Your task to perform on an android device: add a contact in the contacts app Image 0: 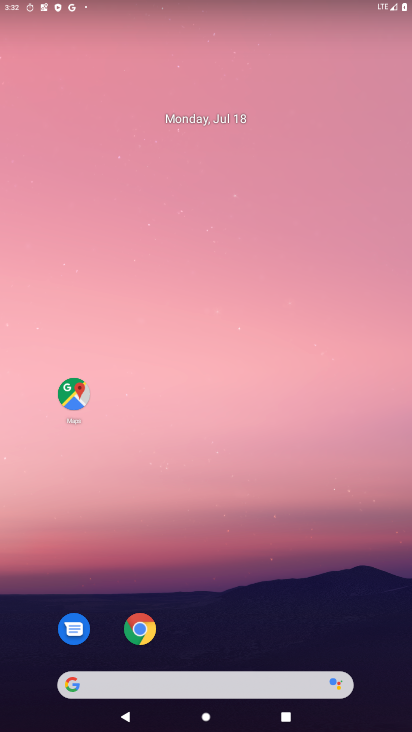
Step 0: drag from (183, 679) to (137, 3)
Your task to perform on an android device: add a contact in the contacts app Image 1: 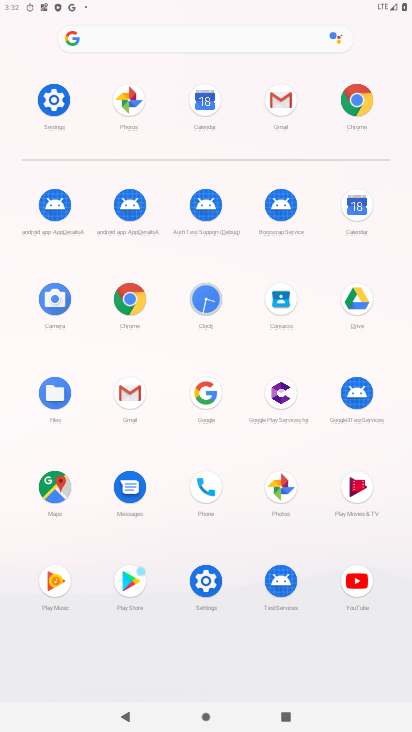
Step 1: click (209, 484)
Your task to perform on an android device: add a contact in the contacts app Image 2: 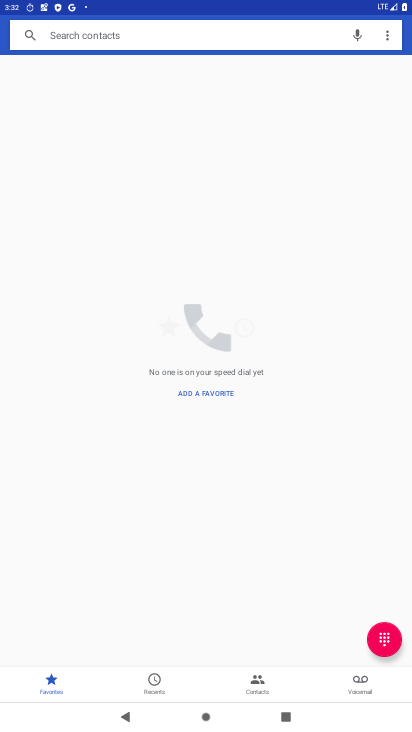
Step 2: click (262, 689)
Your task to perform on an android device: add a contact in the contacts app Image 3: 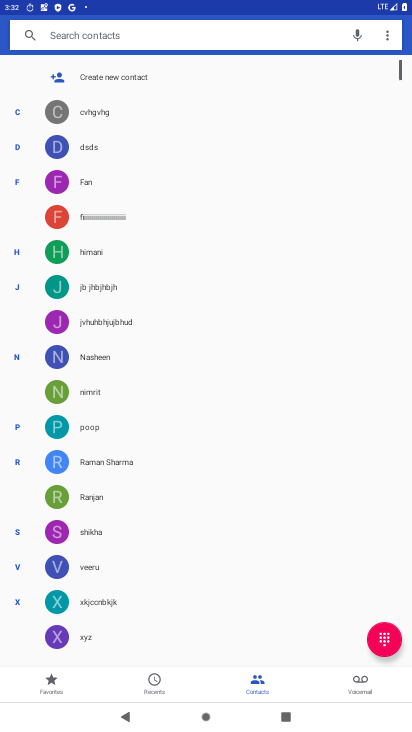
Step 3: click (103, 81)
Your task to perform on an android device: add a contact in the contacts app Image 4: 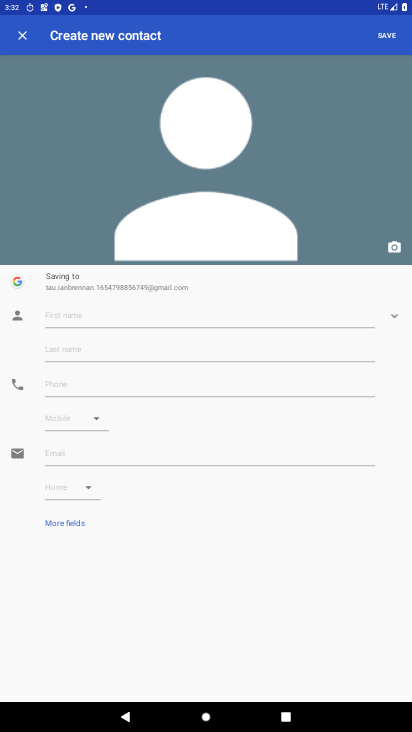
Step 4: type "ii"
Your task to perform on an android device: add a contact in the contacts app Image 5: 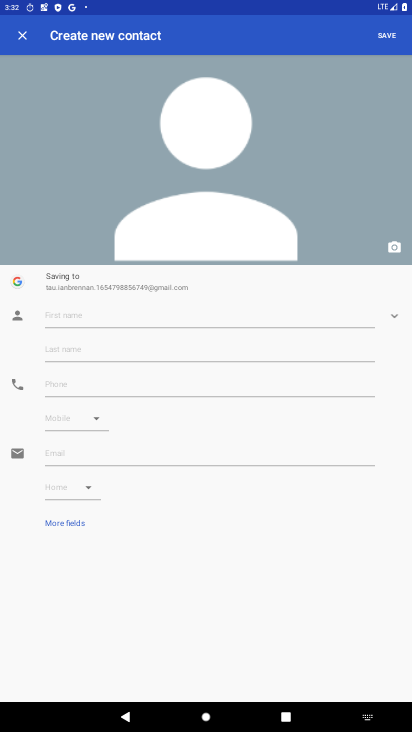
Step 5: click (186, 320)
Your task to perform on an android device: add a contact in the contacts app Image 6: 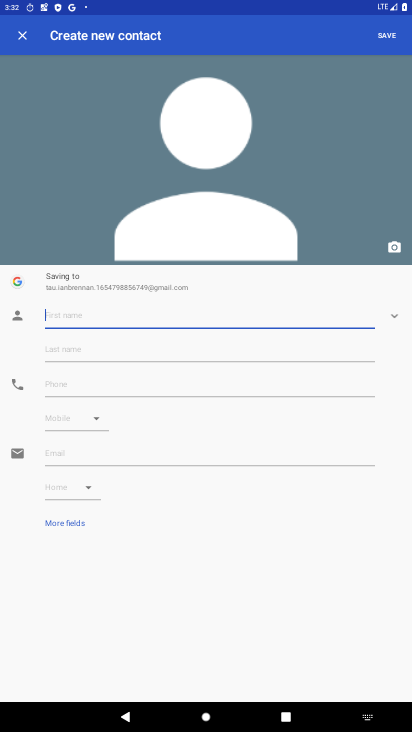
Step 6: type "yfy"
Your task to perform on an android device: add a contact in the contacts app Image 7: 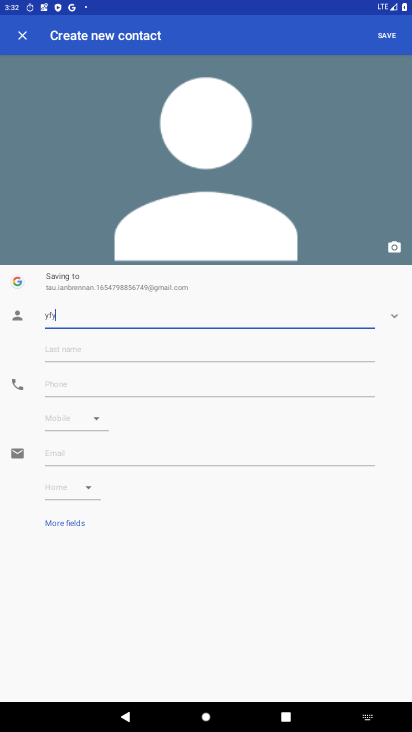
Step 7: click (164, 383)
Your task to perform on an android device: add a contact in the contacts app Image 8: 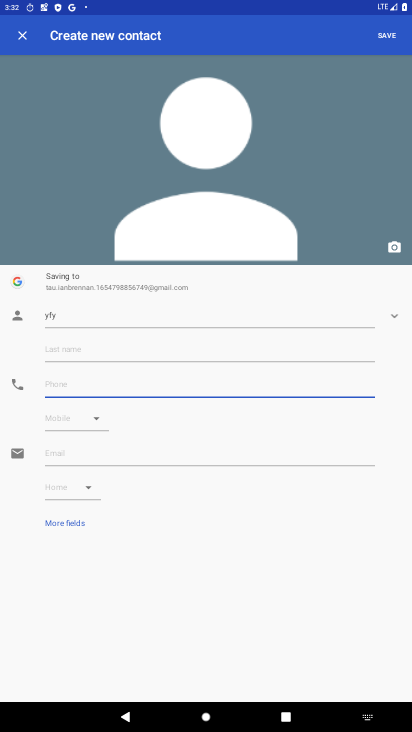
Step 8: type "u8908"
Your task to perform on an android device: add a contact in the contacts app Image 9: 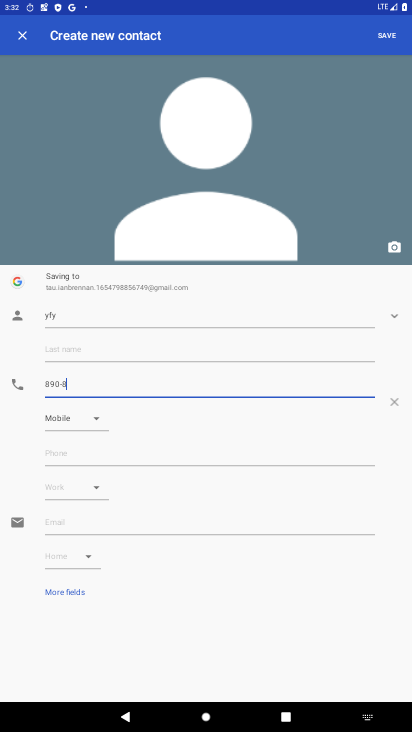
Step 9: type ""
Your task to perform on an android device: add a contact in the contacts app Image 10: 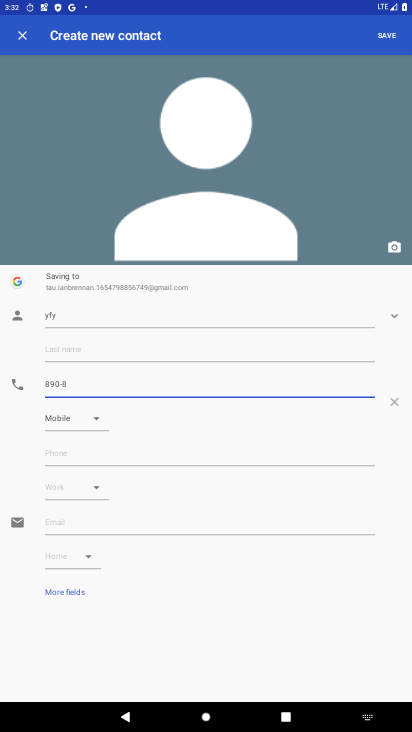
Step 10: click (393, 34)
Your task to perform on an android device: add a contact in the contacts app Image 11: 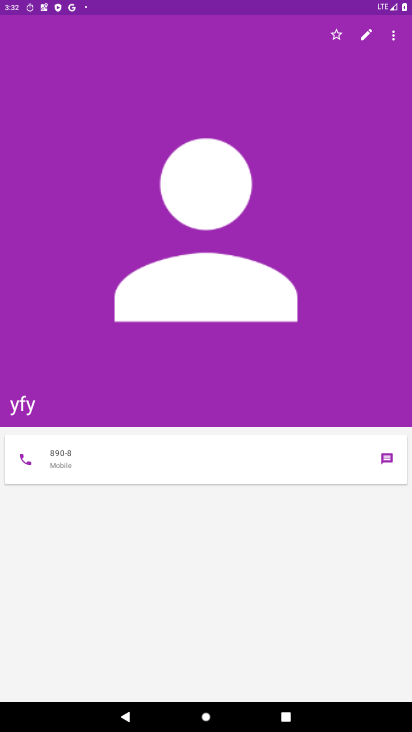
Step 11: task complete